Your task to perform on an android device: Open Yahoo.com Image 0: 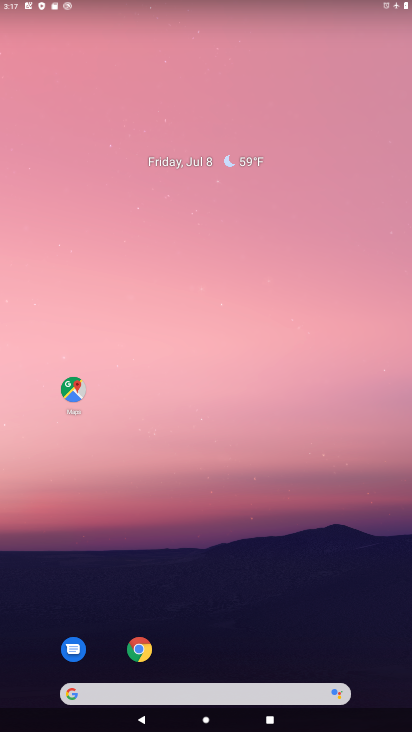
Step 0: drag from (282, 583) to (222, 150)
Your task to perform on an android device: Open Yahoo.com Image 1: 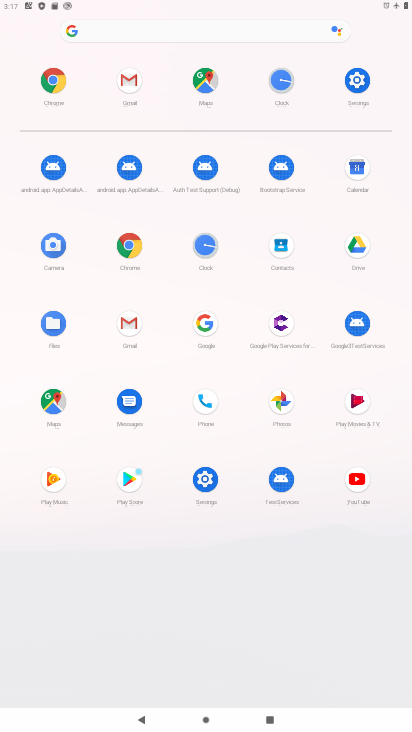
Step 1: click (127, 237)
Your task to perform on an android device: Open Yahoo.com Image 2: 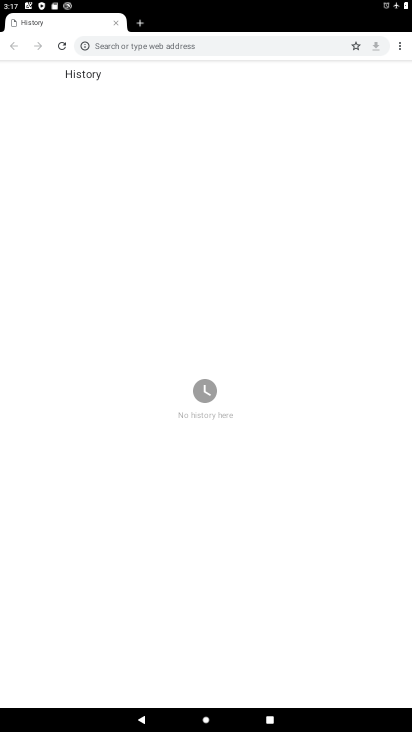
Step 2: click (206, 41)
Your task to perform on an android device: Open Yahoo.com Image 3: 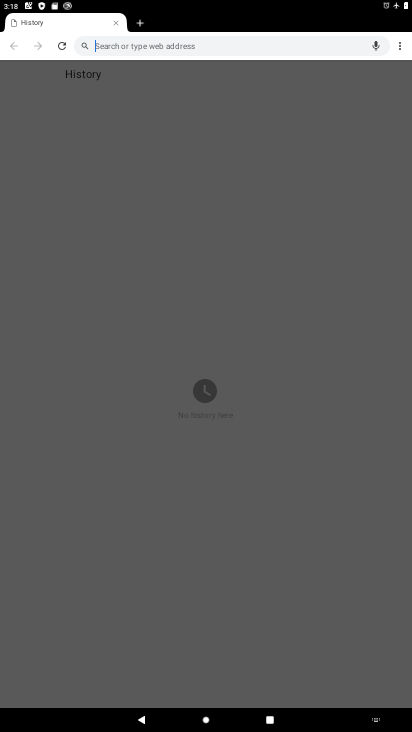
Step 3: type "yahoo.com"
Your task to perform on an android device: Open Yahoo.com Image 4: 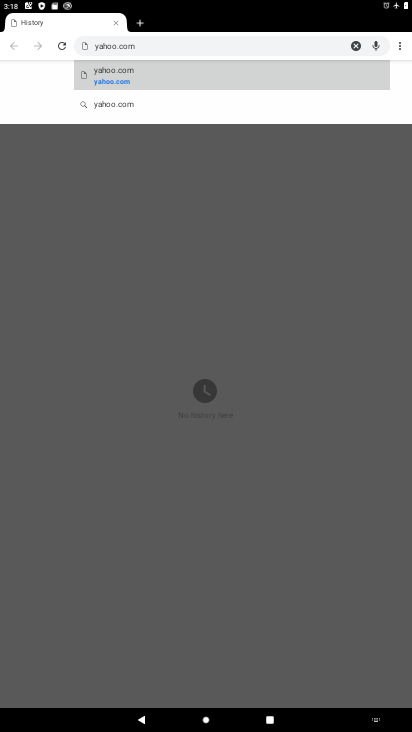
Step 4: click (131, 83)
Your task to perform on an android device: Open Yahoo.com Image 5: 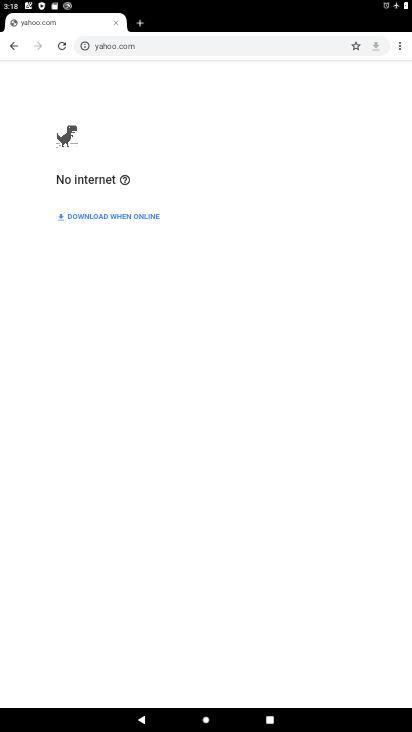
Step 5: task complete